Your task to perform on an android device: Open ESPN.com Image 0: 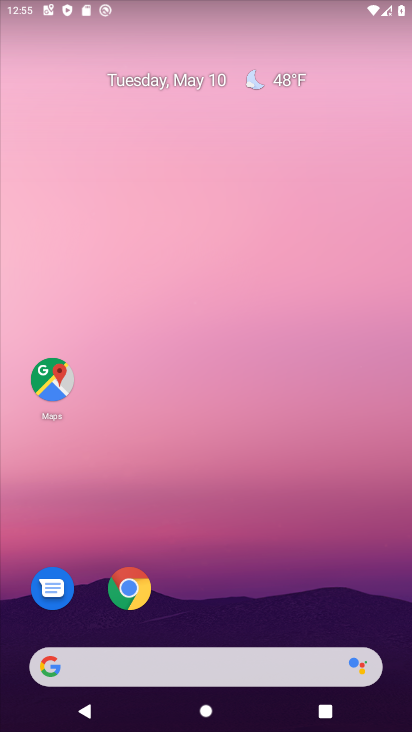
Step 0: drag from (277, 600) to (255, 50)
Your task to perform on an android device: Open ESPN.com Image 1: 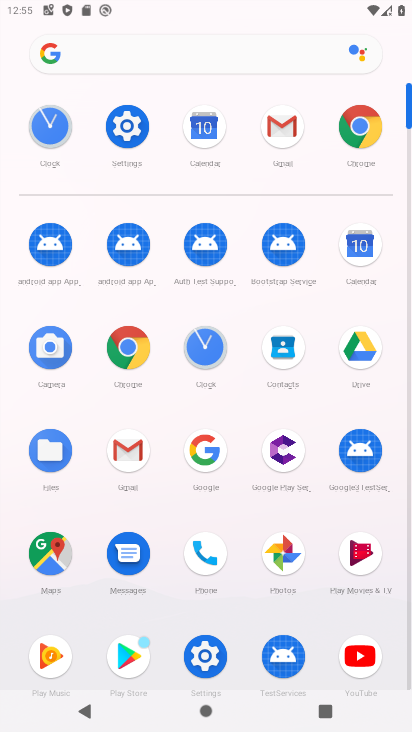
Step 1: click (120, 346)
Your task to perform on an android device: Open ESPN.com Image 2: 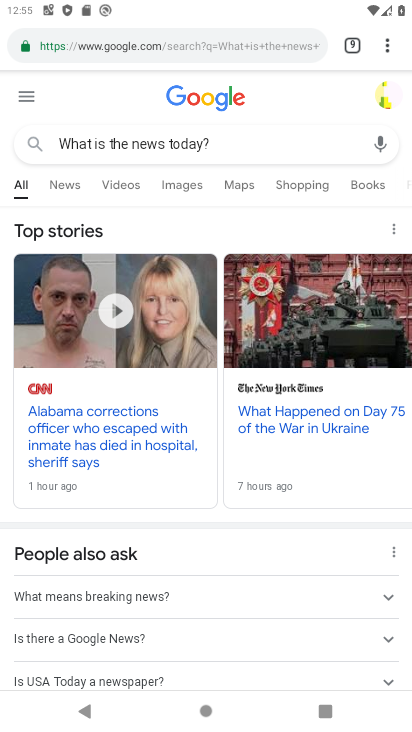
Step 2: click (377, 54)
Your task to perform on an android device: Open ESPN.com Image 3: 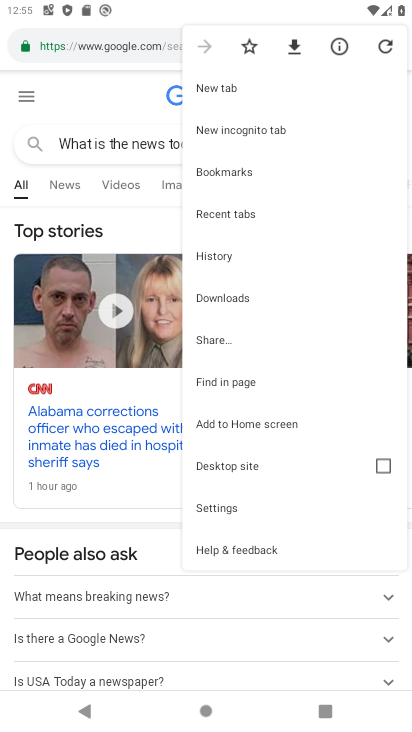
Step 3: click (230, 96)
Your task to perform on an android device: Open ESPN.com Image 4: 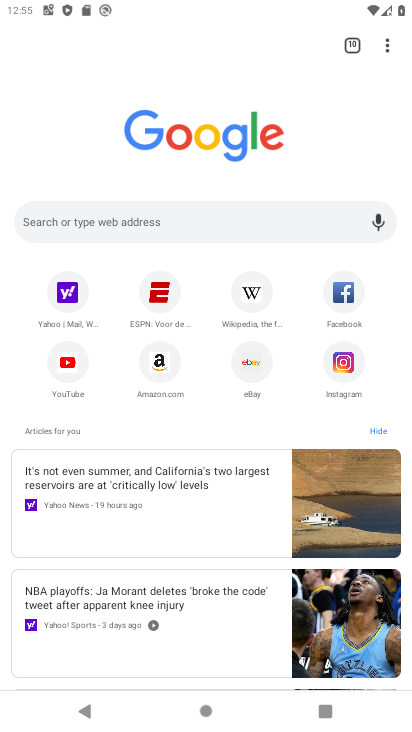
Step 4: click (159, 286)
Your task to perform on an android device: Open ESPN.com Image 5: 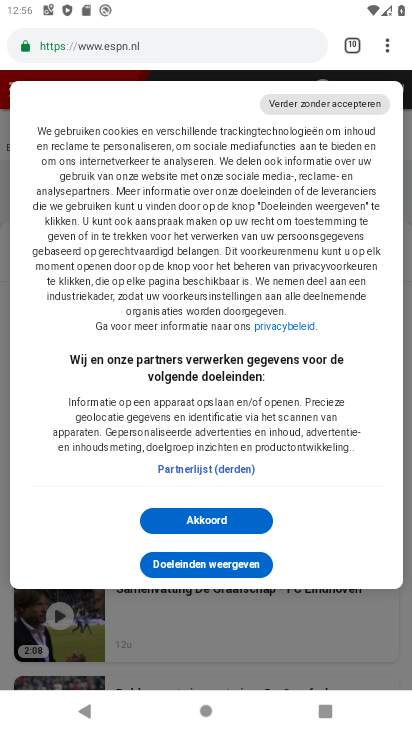
Step 5: task complete